Your task to perform on an android device: turn off data saver in the chrome app Image 0: 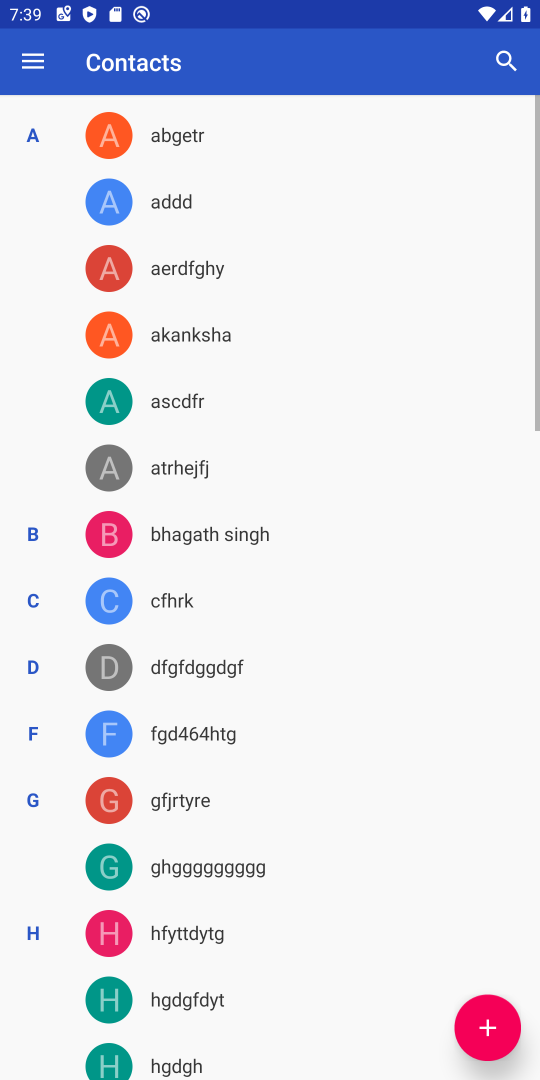
Step 0: press home button
Your task to perform on an android device: turn off data saver in the chrome app Image 1: 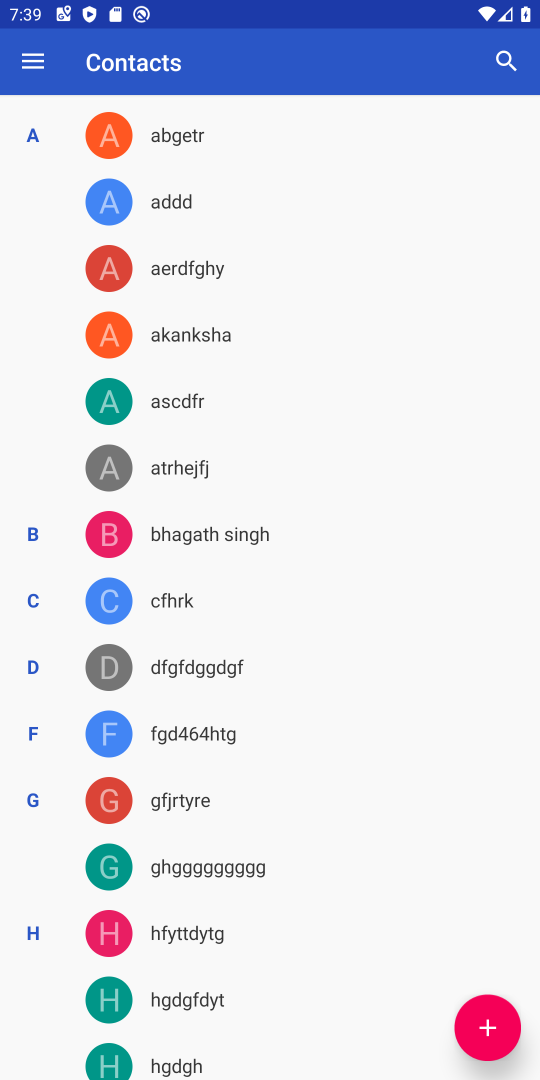
Step 1: press home button
Your task to perform on an android device: turn off data saver in the chrome app Image 2: 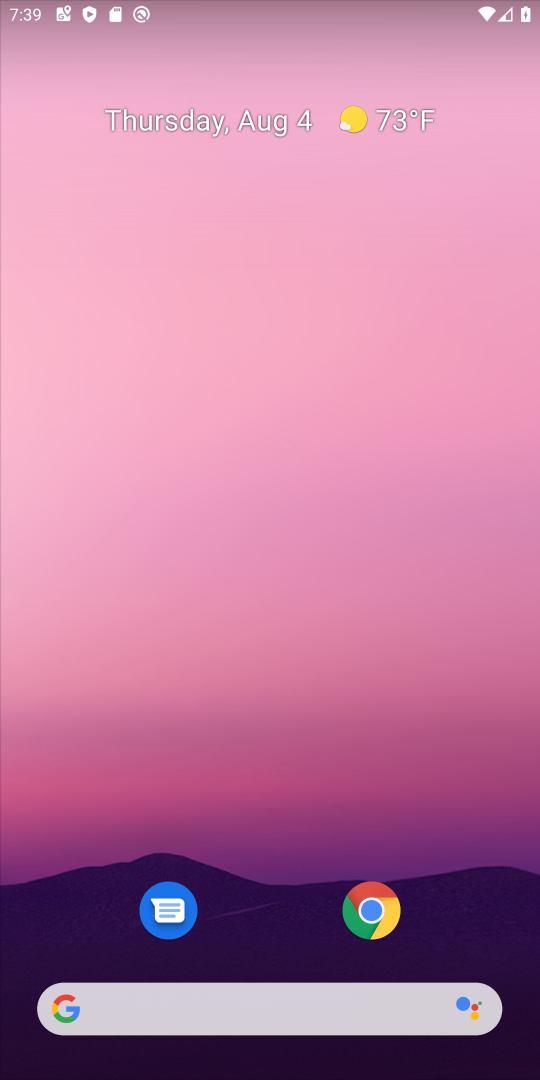
Step 2: drag from (446, 886) to (461, 127)
Your task to perform on an android device: turn off data saver in the chrome app Image 3: 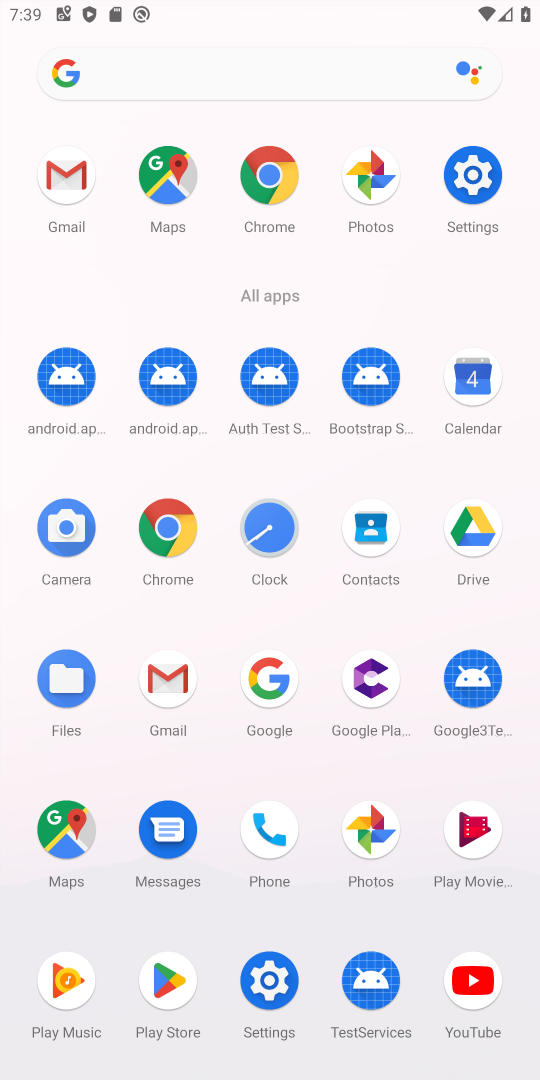
Step 3: click (163, 531)
Your task to perform on an android device: turn off data saver in the chrome app Image 4: 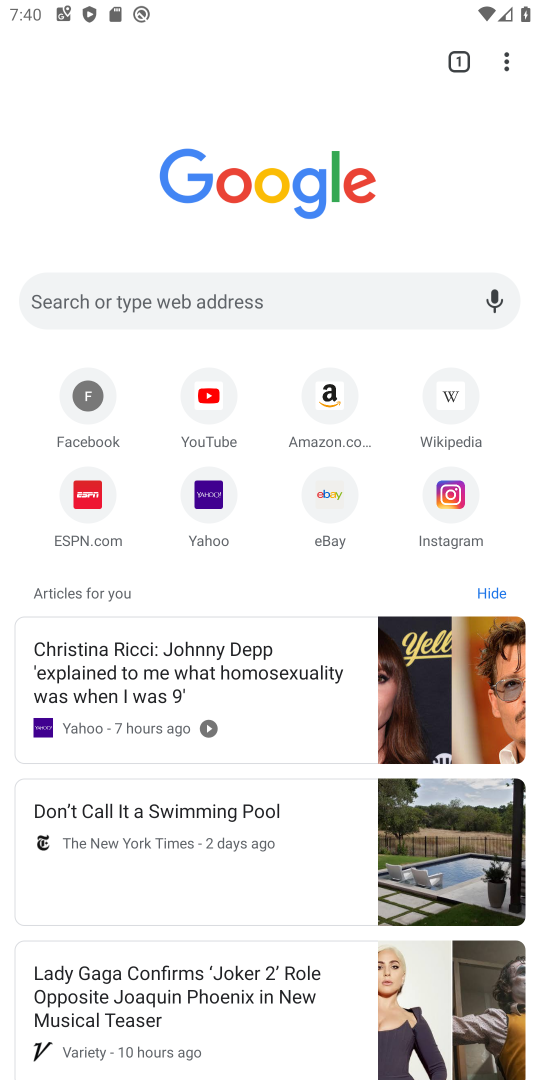
Step 4: drag from (517, 50) to (404, 527)
Your task to perform on an android device: turn off data saver in the chrome app Image 5: 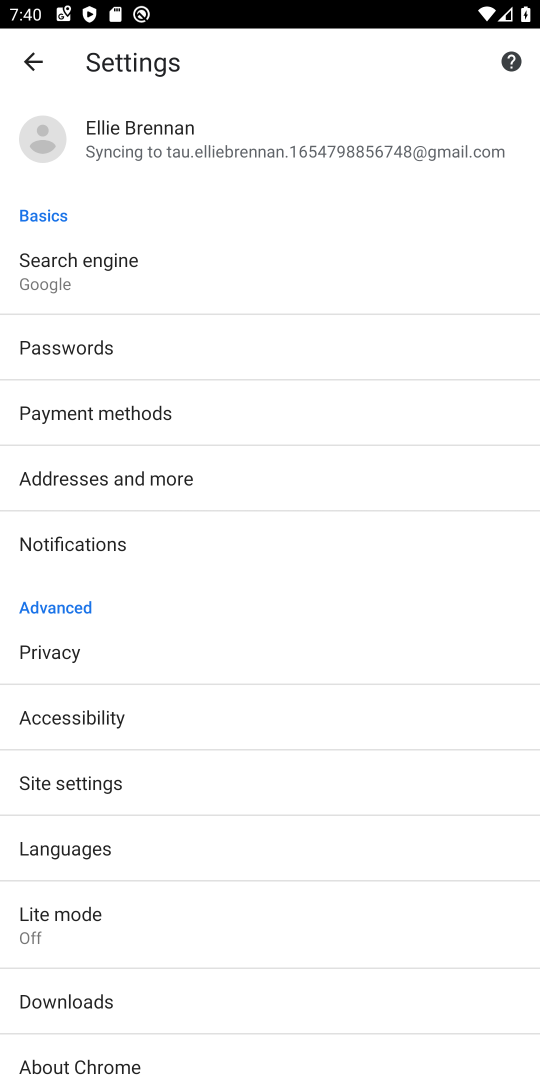
Step 5: drag from (332, 870) to (412, 486)
Your task to perform on an android device: turn off data saver in the chrome app Image 6: 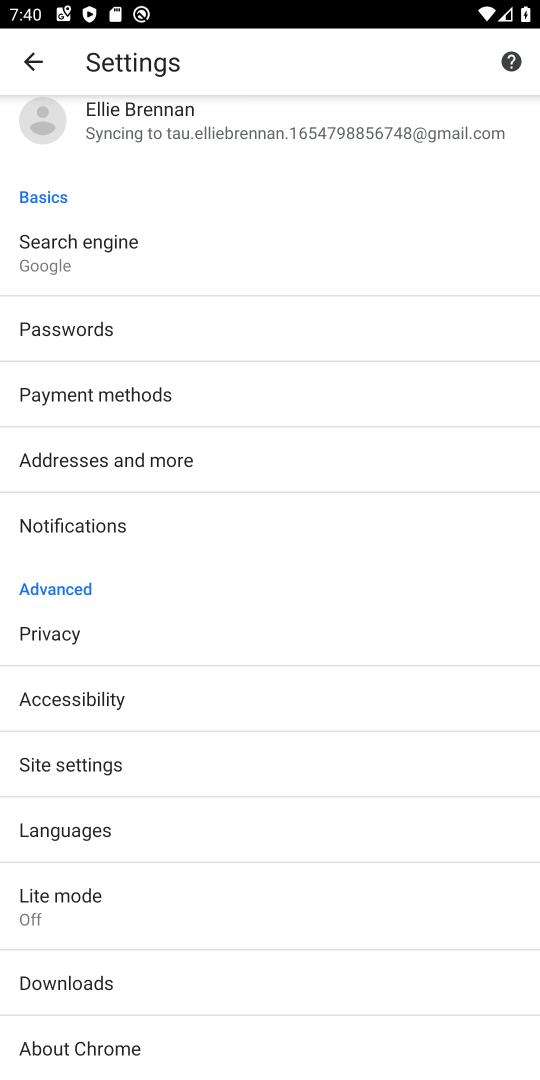
Step 6: click (88, 922)
Your task to perform on an android device: turn off data saver in the chrome app Image 7: 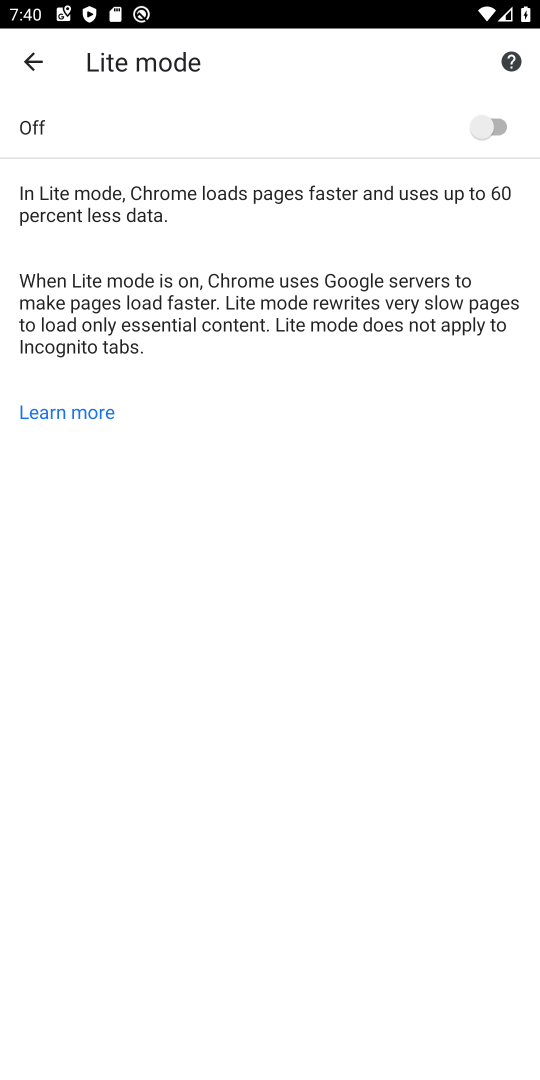
Step 7: task complete